Your task to perform on an android device: open sync settings in chrome Image 0: 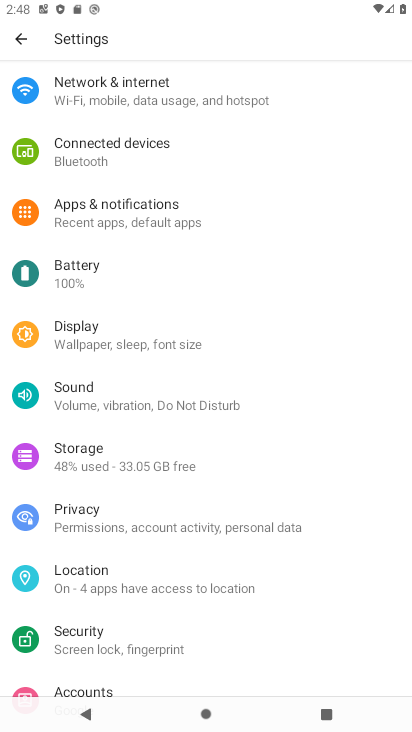
Step 0: press home button
Your task to perform on an android device: open sync settings in chrome Image 1: 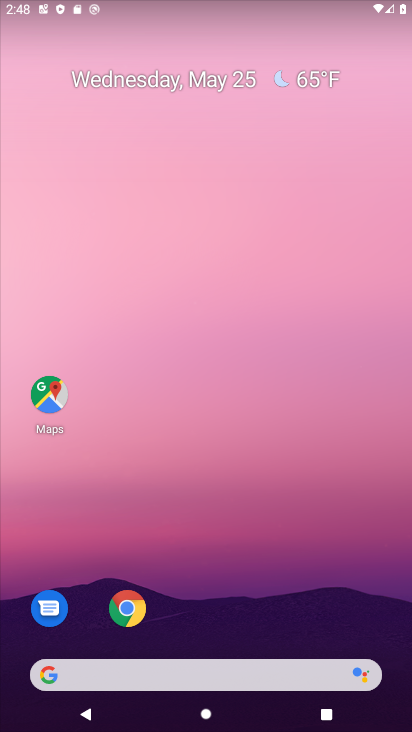
Step 1: click (129, 610)
Your task to perform on an android device: open sync settings in chrome Image 2: 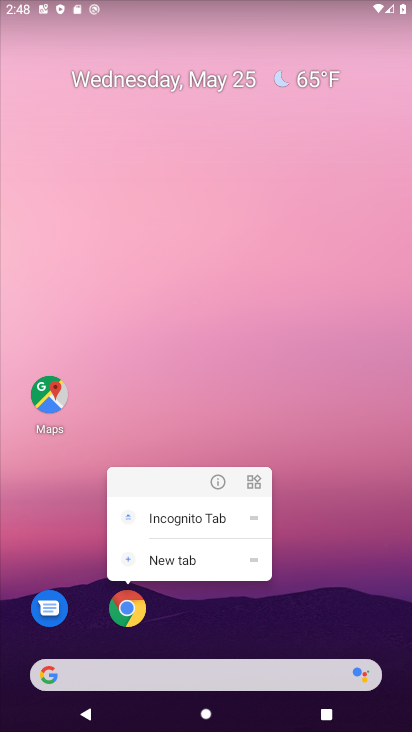
Step 2: click (129, 610)
Your task to perform on an android device: open sync settings in chrome Image 3: 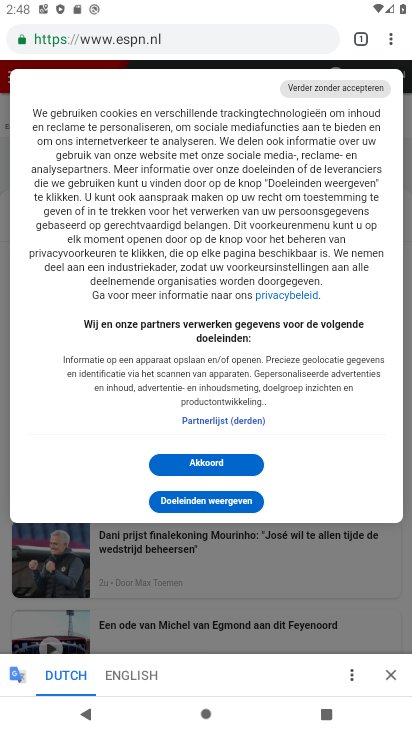
Step 3: click (394, 42)
Your task to perform on an android device: open sync settings in chrome Image 4: 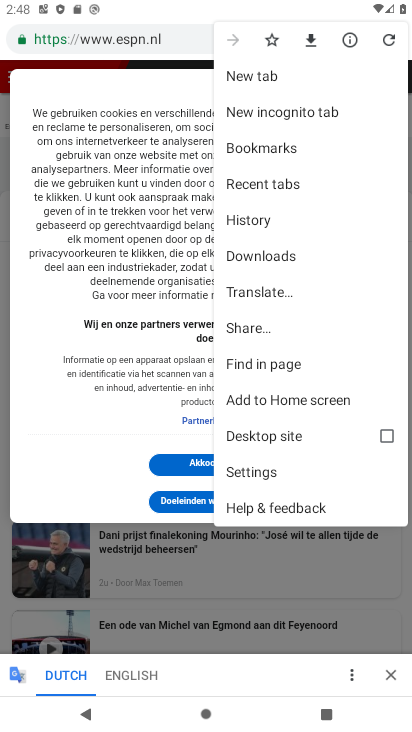
Step 4: click (246, 468)
Your task to perform on an android device: open sync settings in chrome Image 5: 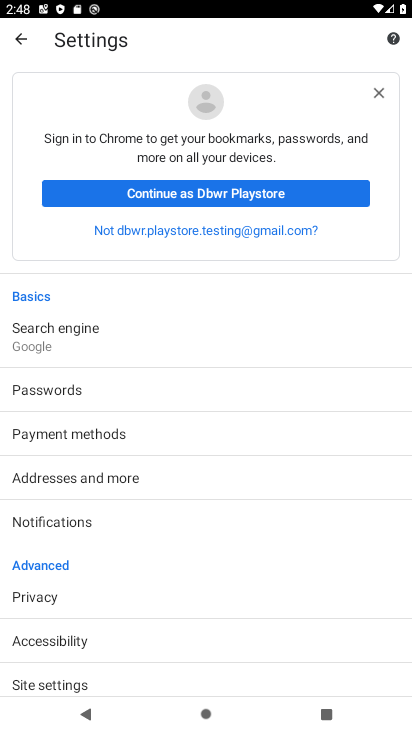
Step 5: click (189, 198)
Your task to perform on an android device: open sync settings in chrome Image 6: 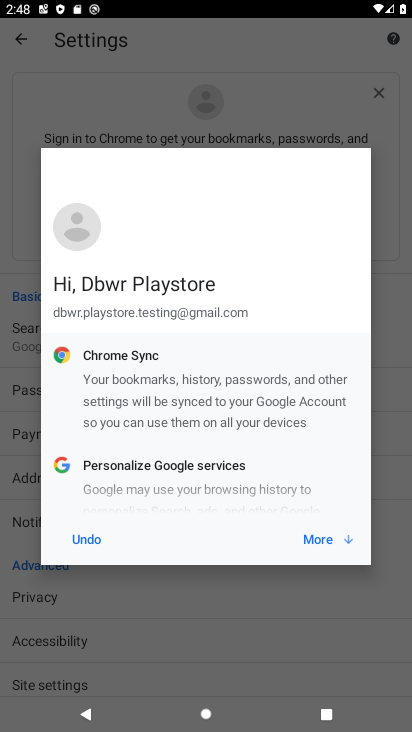
Step 6: click (329, 544)
Your task to perform on an android device: open sync settings in chrome Image 7: 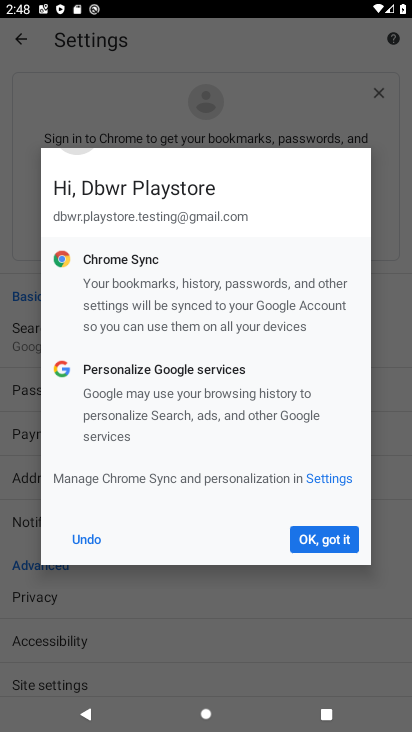
Step 7: click (329, 544)
Your task to perform on an android device: open sync settings in chrome Image 8: 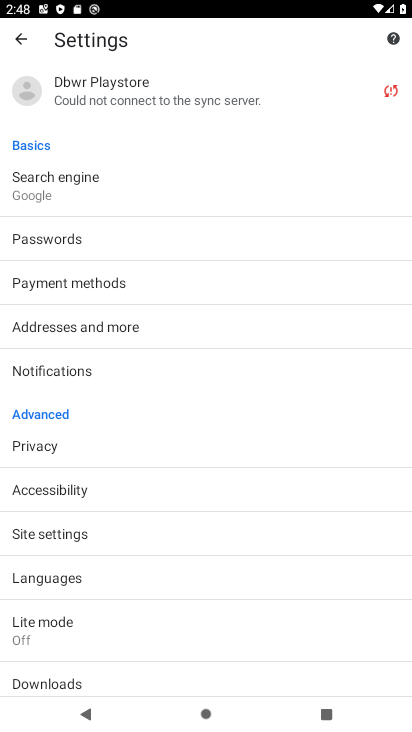
Step 8: click (95, 108)
Your task to perform on an android device: open sync settings in chrome Image 9: 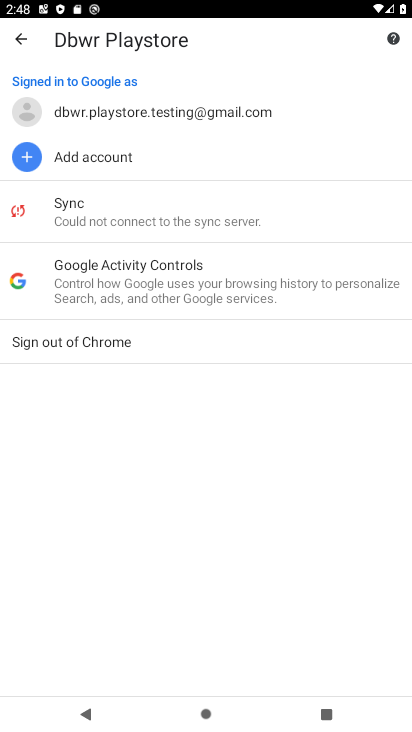
Step 9: click (61, 214)
Your task to perform on an android device: open sync settings in chrome Image 10: 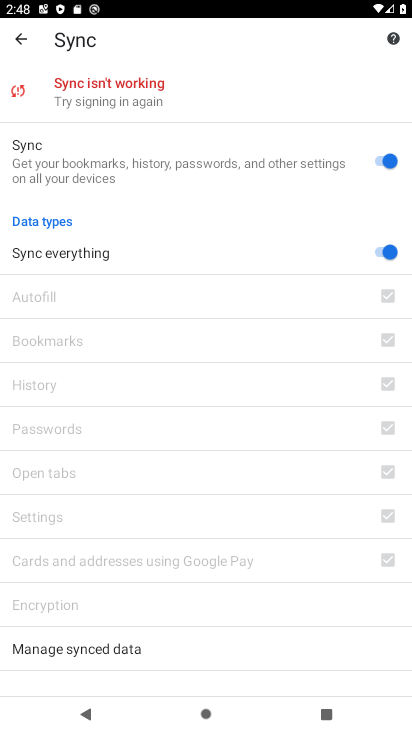
Step 10: task complete